Your task to perform on an android device: allow notifications from all sites in the chrome app Image 0: 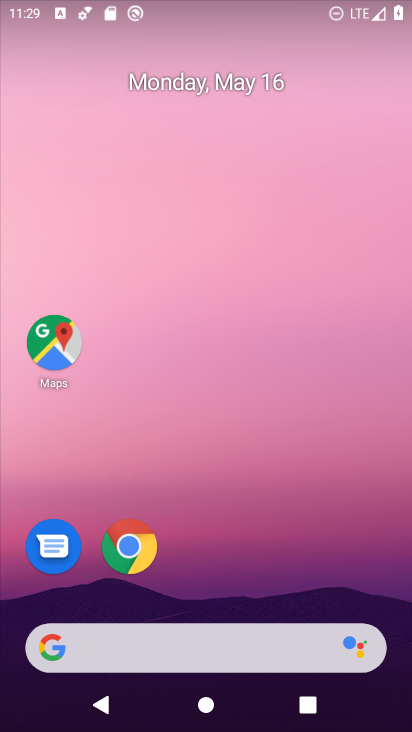
Step 0: click (124, 546)
Your task to perform on an android device: allow notifications from all sites in the chrome app Image 1: 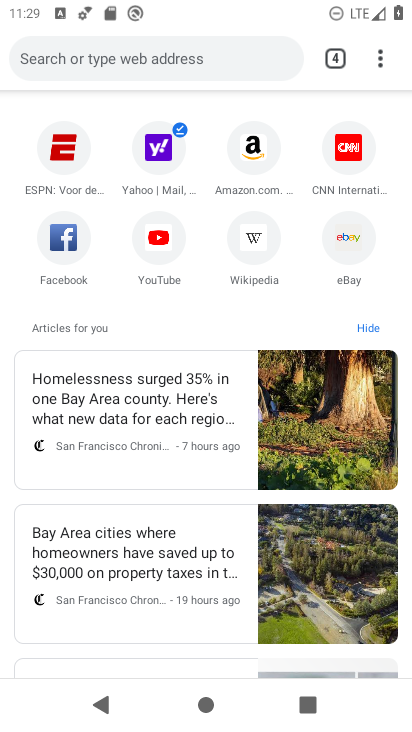
Step 1: click (390, 67)
Your task to perform on an android device: allow notifications from all sites in the chrome app Image 2: 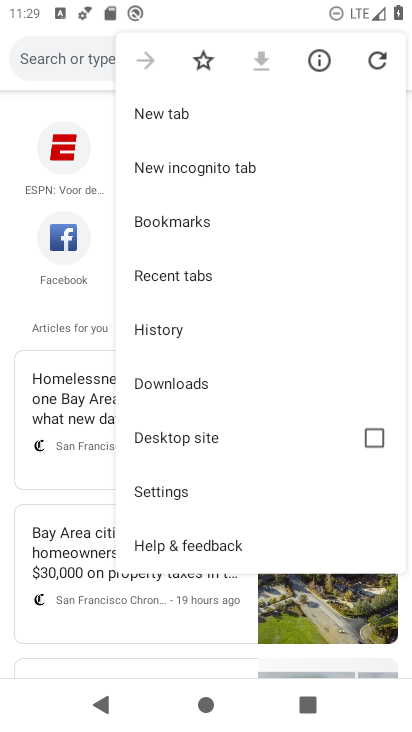
Step 2: click (165, 492)
Your task to perform on an android device: allow notifications from all sites in the chrome app Image 3: 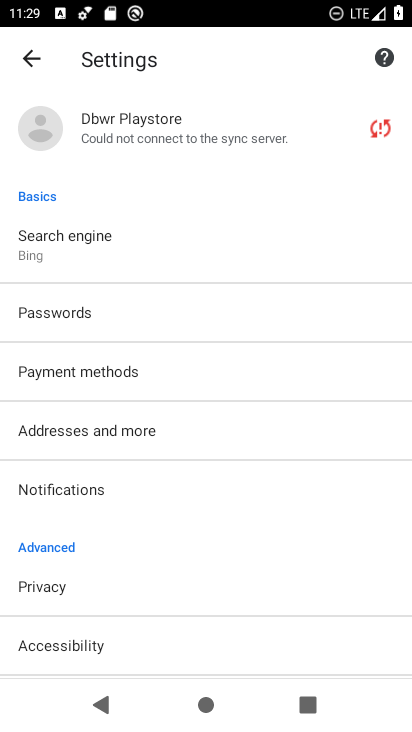
Step 3: click (132, 495)
Your task to perform on an android device: allow notifications from all sites in the chrome app Image 4: 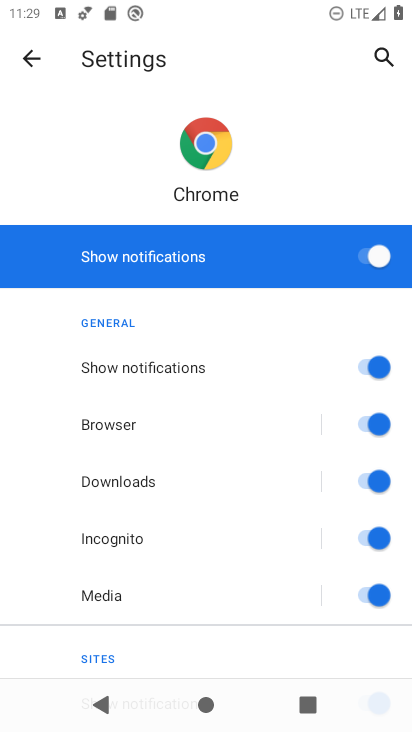
Step 4: task complete